Your task to perform on an android device: Go to notification settings Image 0: 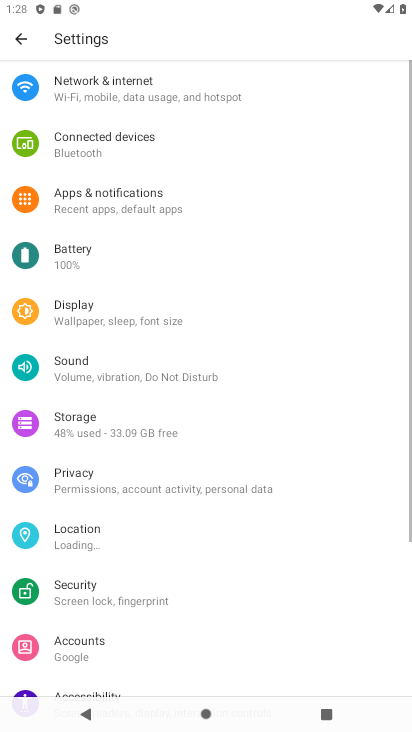
Step 0: click (105, 200)
Your task to perform on an android device: Go to notification settings Image 1: 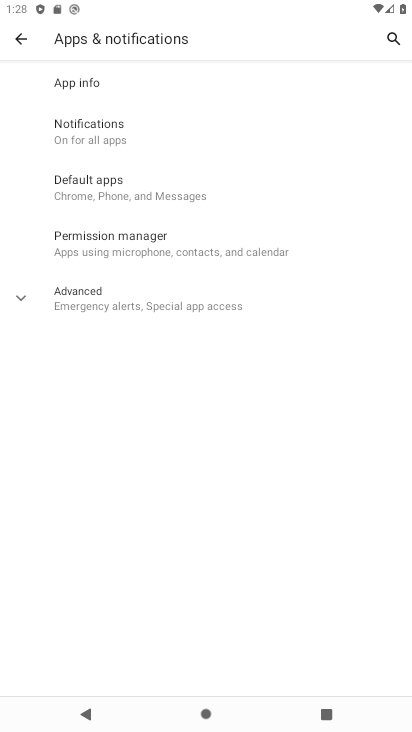
Step 1: task complete